Your task to perform on an android device: toggle priority inbox in the gmail app Image 0: 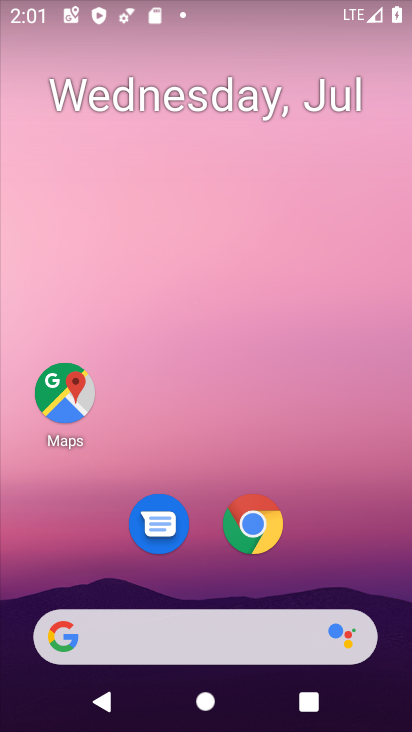
Step 0: drag from (352, 429) to (371, 65)
Your task to perform on an android device: toggle priority inbox in the gmail app Image 1: 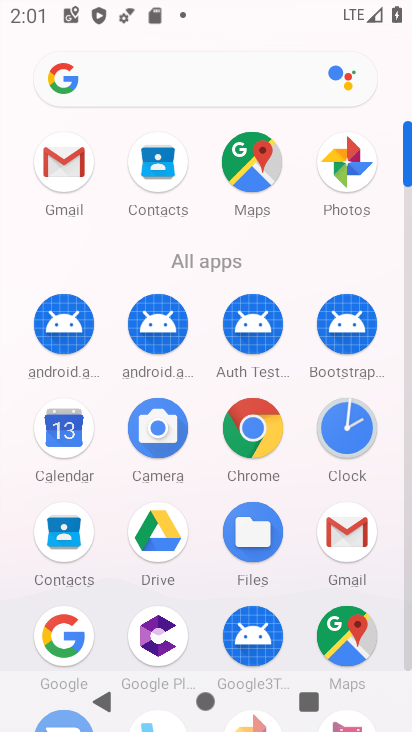
Step 1: click (77, 167)
Your task to perform on an android device: toggle priority inbox in the gmail app Image 2: 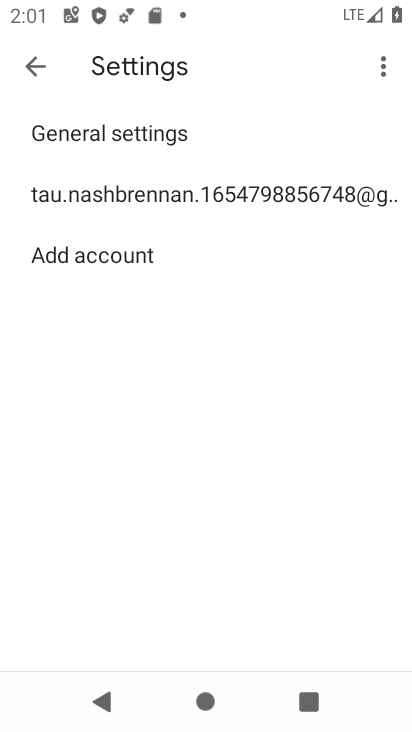
Step 2: click (128, 187)
Your task to perform on an android device: toggle priority inbox in the gmail app Image 3: 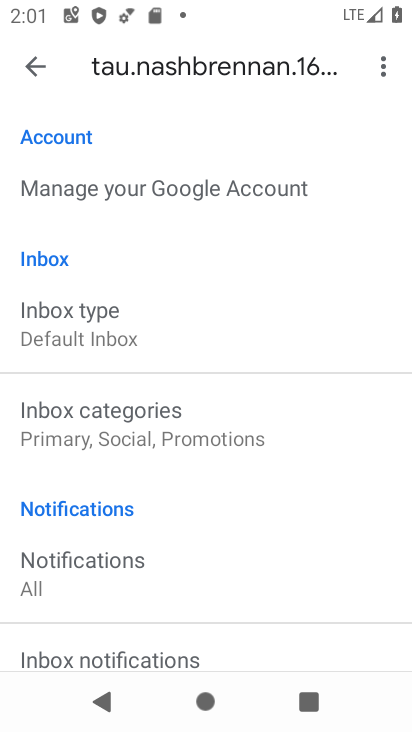
Step 3: click (97, 321)
Your task to perform on an android device: toggle priority inbox in the gmail app Image 4: 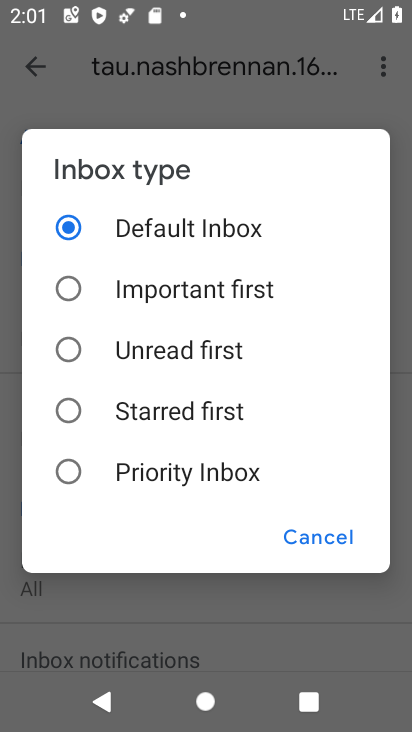
Step 4: click (75, 476)
Your task to perform on an android device: toggle priority inbox in the gmail app Image 5: 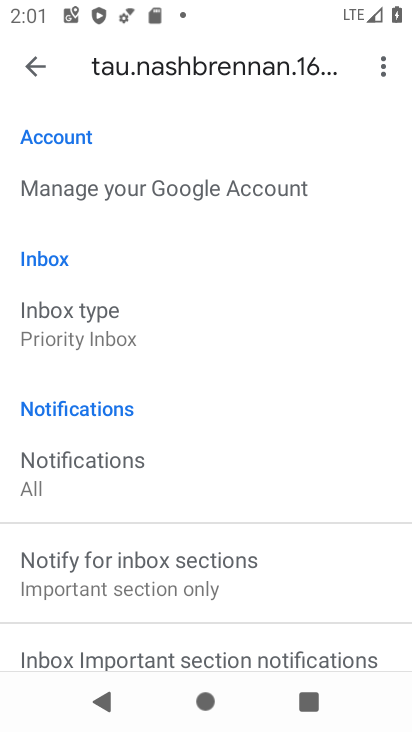
Step 5: task complete